Your task to perform on an android device: Is it going to rain tomorrow? Image 0: 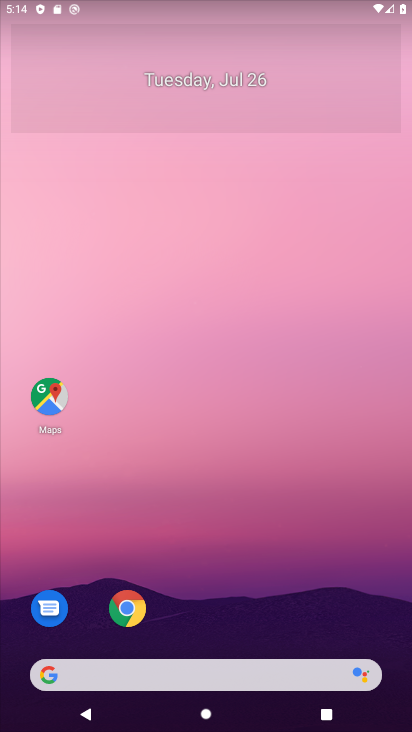
Step 0: press home button
Your task to perform on an android device: Is it going to rain tomorrow? Image 1: 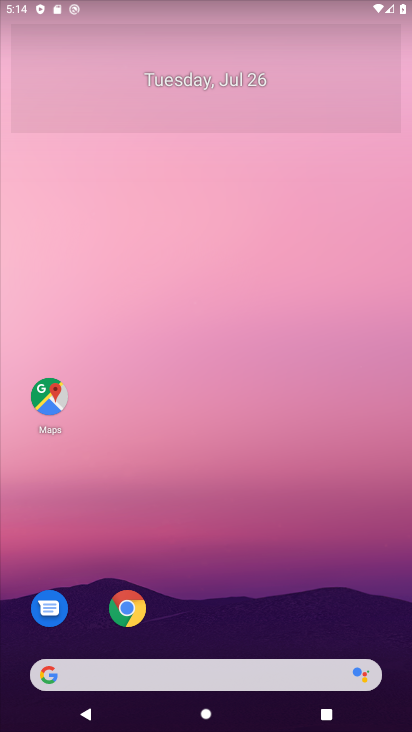
Step 1: click (50, 677)
Your task to perform on an android device: Is it going to rain tomorrow? Image 2: 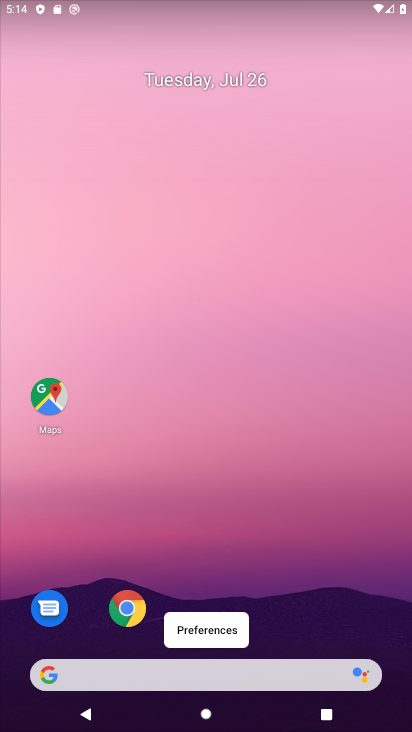
Step 2: click (53, 675)
Your task to perform on an android device: Is it going to rain tomorrow? Image 3: 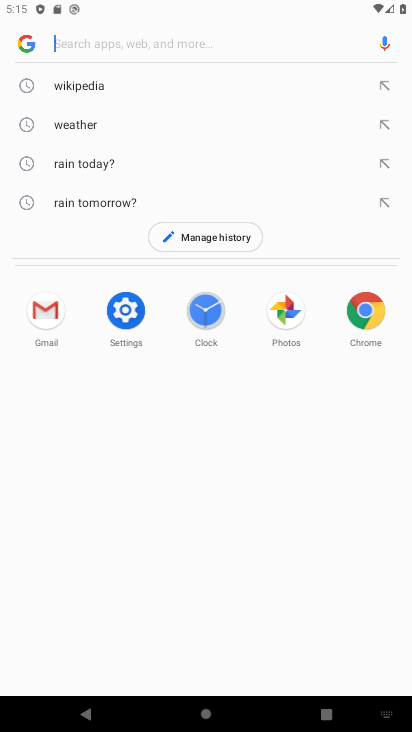
Step 3: click (107, 198)
Your task to perform on an android device: Is it going to rain tomorrow? Image 4: 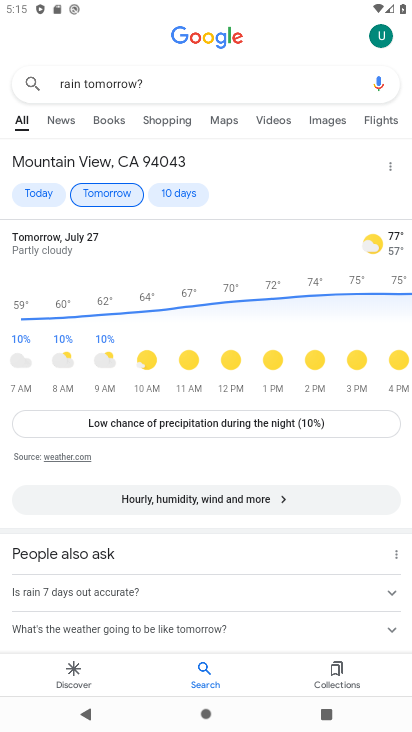
Step 4: task complete